Your task to perform on an android device: find photos in the google photos app Image 0: 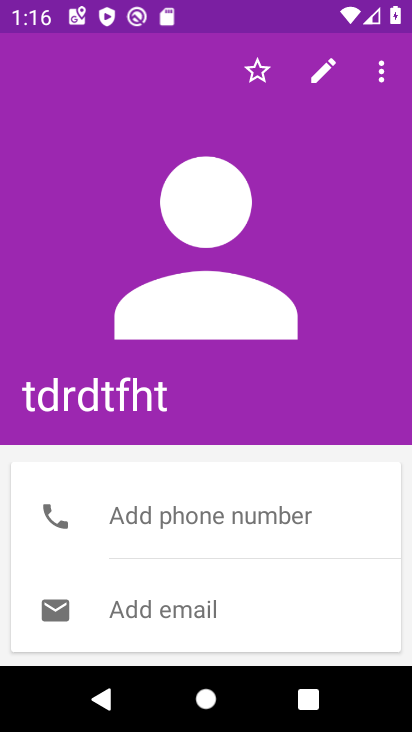
Step 0: press home button
Your task to perform on an android device: find photos in the google photos app Image 1: 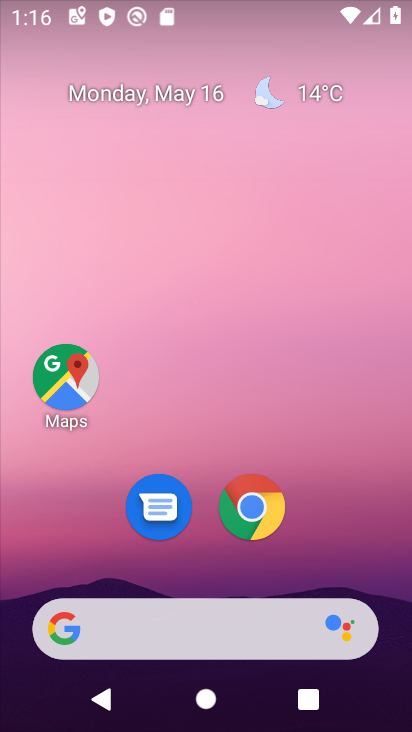
Step 1: drag from (216, 565) to (280, 297)
Your task to perform on an android device: find photos in the google photos app Image 2: 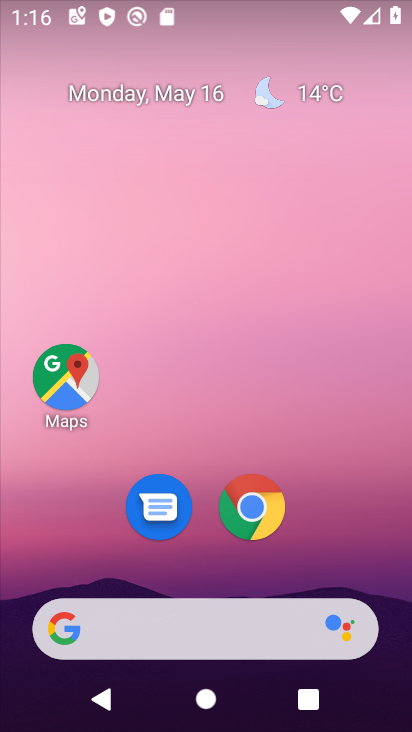
Step 2: drag from (177, 595) to (299, 63)
Your task to perform on an android device: find photos in the google photos app Image 3: 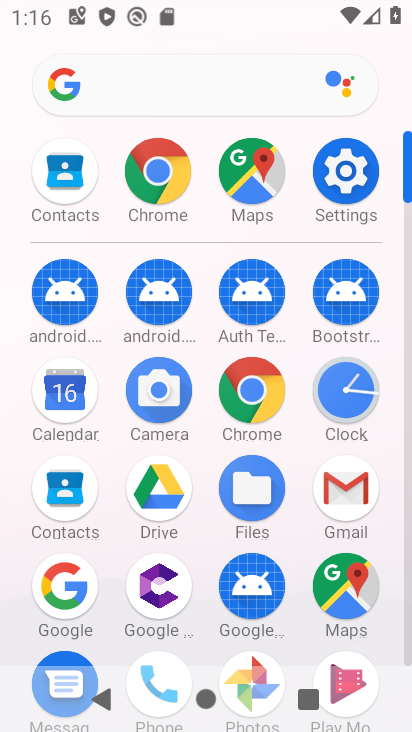
Step 3: drag from (207, 263) to (215, 76)
Your task to perform on an android device: find photos in the google photos app Image 4: 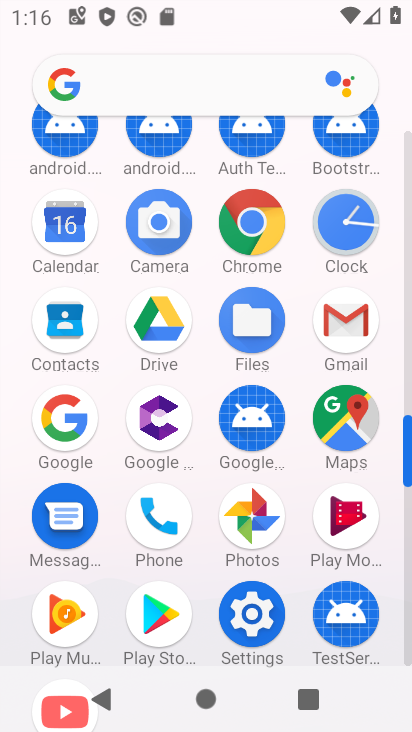
Step 4: click (266, 529)
Your task to perform on an android device: find photos in the google photos app Image 5: 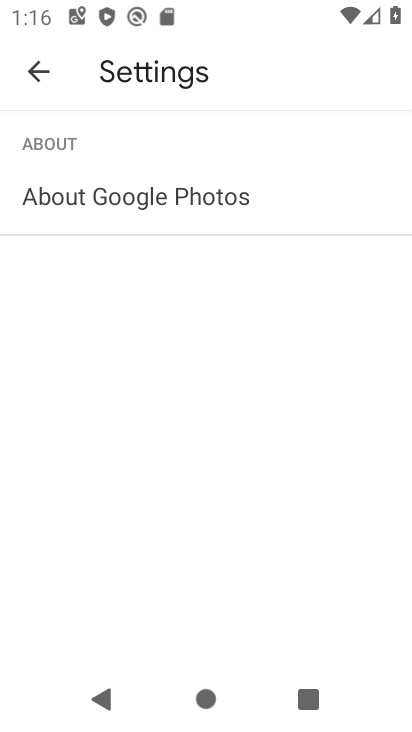
Step 5: press back button
Your task to perform on an android device: find photos in the google photos app Image 6: 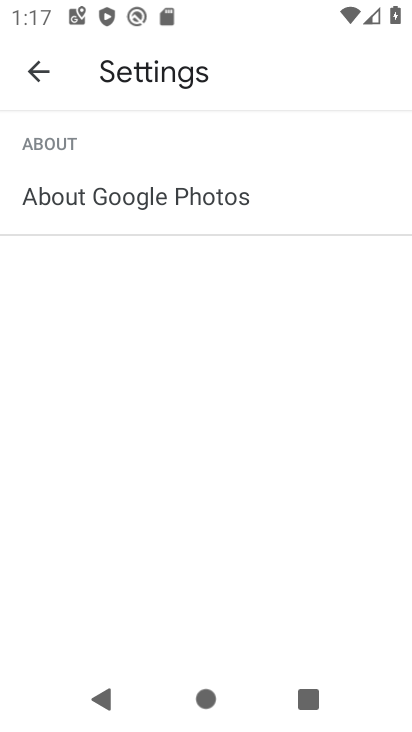
Step 6: press back button
Your task to perform on an android device: find photos in the google photos app Image 7: 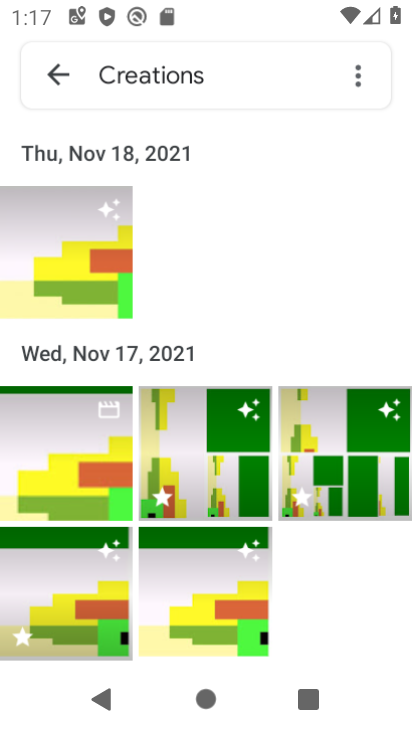
Step 7: click (38, 83)
Your task to perform on an android device: find photos in the google photos app Image 8: 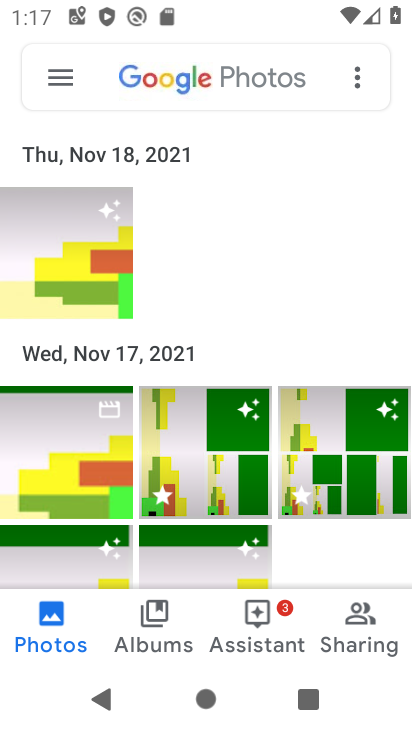
Step 8: click (108, 294)
Your task to perform on an android device: find photos in the google photos app Image 9: 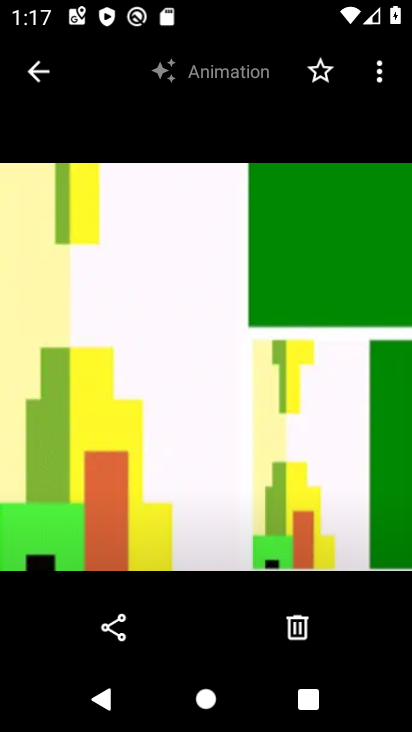
Step 9: click (50, 80)
Your task to perform on an android device: find photos in the google photos app Image 10: 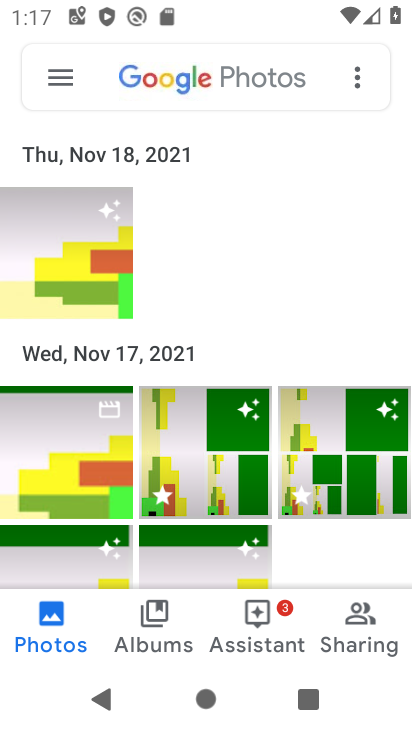
Step 10: task complete